Your task to perform on an android device: Is it going to rain this weekend? Image 0: 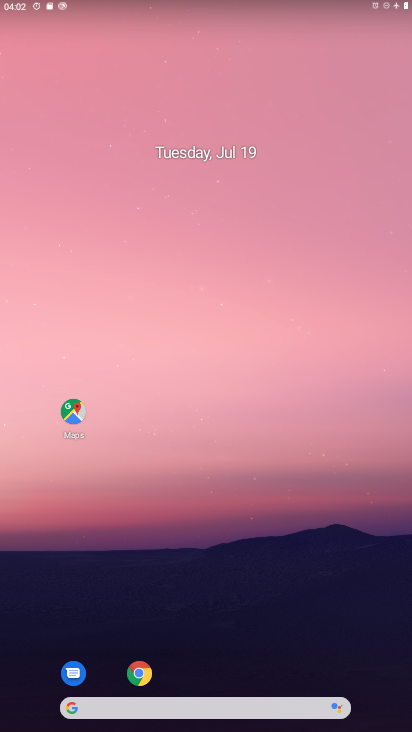
Step 0: click (211, 708)
Your task to perform on an android device: Is it going to rain this weekend? Image 1: 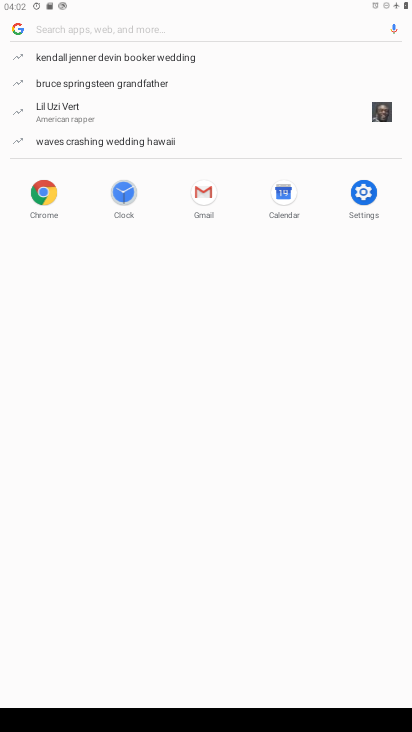
Step 1: type "weather"
Your task to perform on an android device: Is it going to rain this weekend? Image 2: 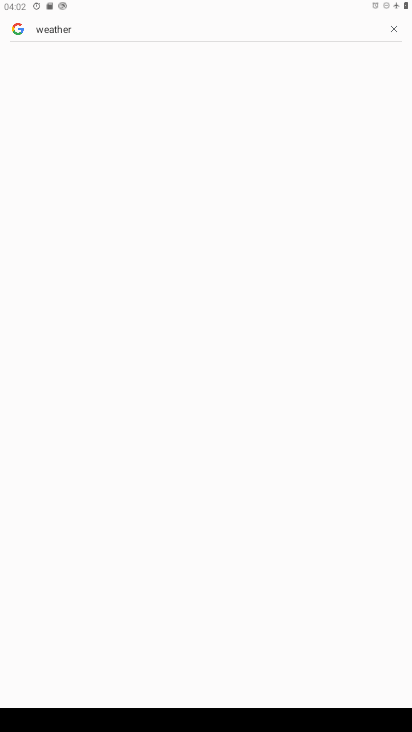
Step 2: click (88, 59)
Your task to perform on an android device: Is it going to rain this weekend? Image 3: 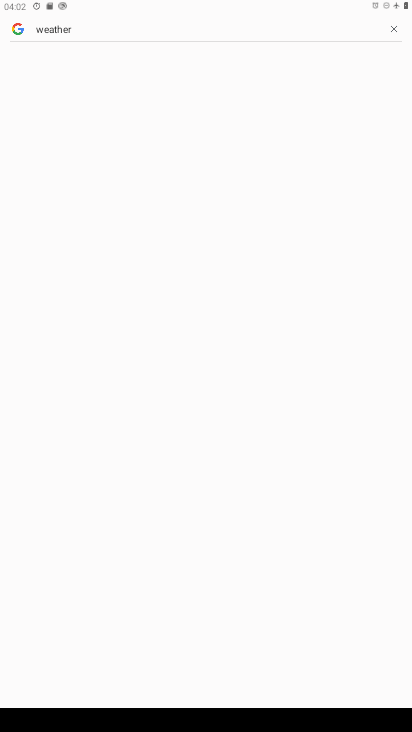
Step 3: click (45, 48)
Your task to perform on an android device: Is it going to rain this weekend? Image 4: 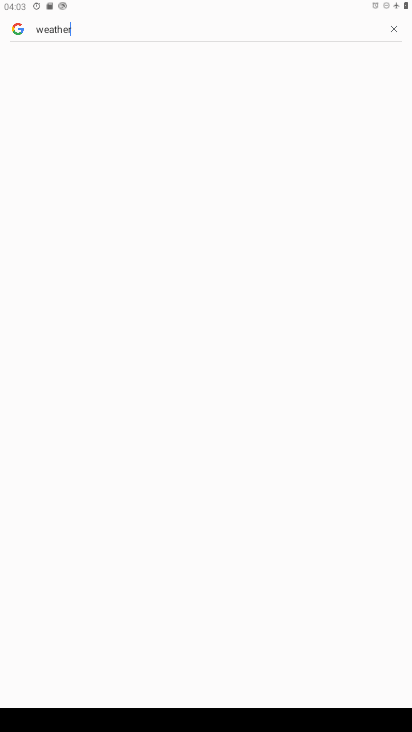
Step 4: task complete